Your task to perform on an android device: change the clock display to analog Image 0: 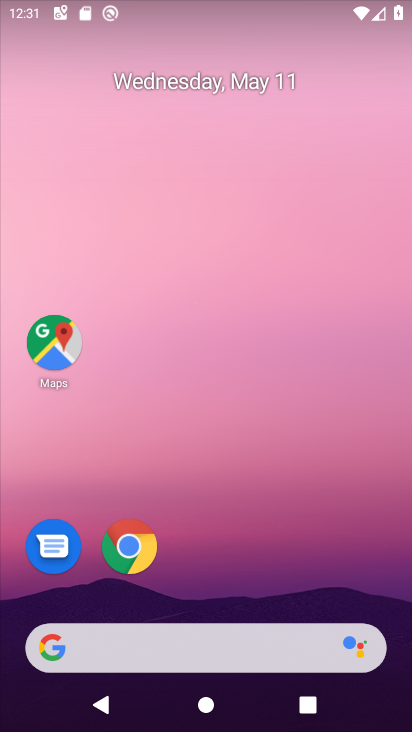
Step 0: drag from (219, 578) to (251, 254)
Your task to perform on an android device: change the clock display to analog Image 1: 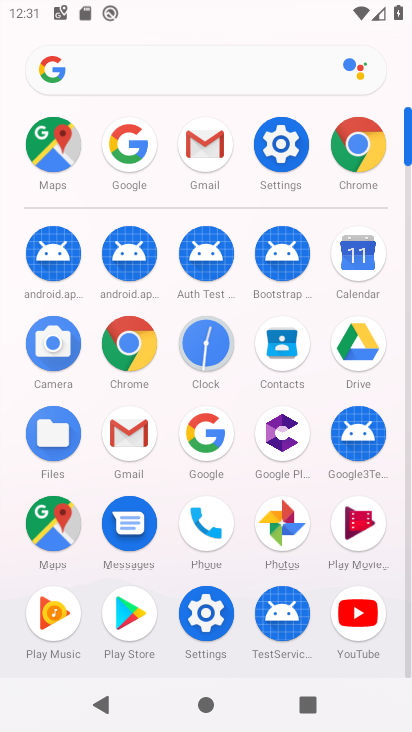
Step 1: click (205, 337)
Your task to perform on an android device: change the clock display to analog Image 2: 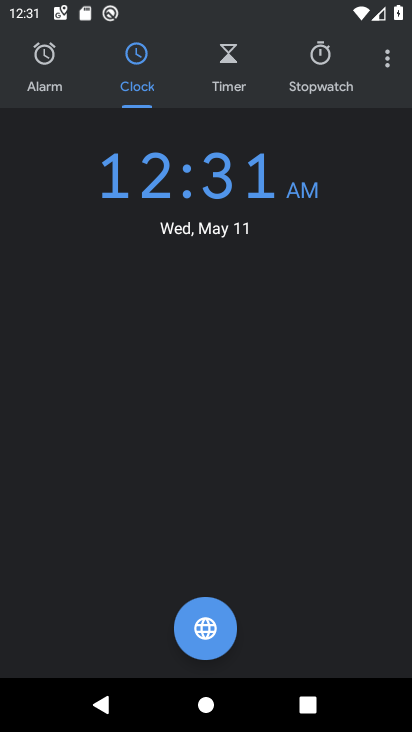
Step 2: click (382, 63)
Your task to perform on an android device: change the clock display to analog Image 3: 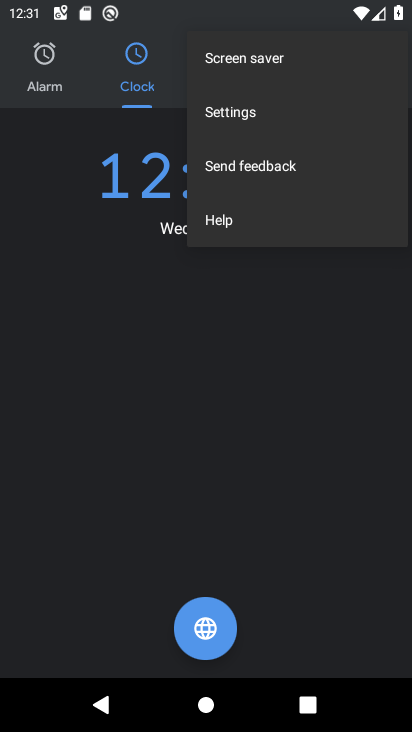
Step 3: click (276, 114)
Your task to perform on an android device: change the clock display to analog Image 4: 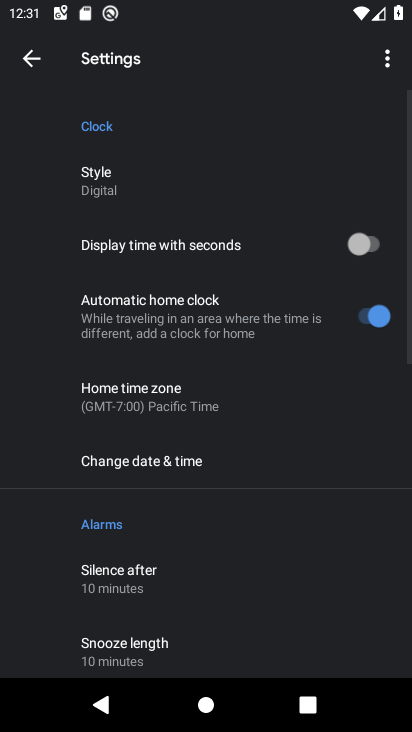
Step 4: click (115, 181)
Your task to perform on an android device: change the clock display to analog Image 5: 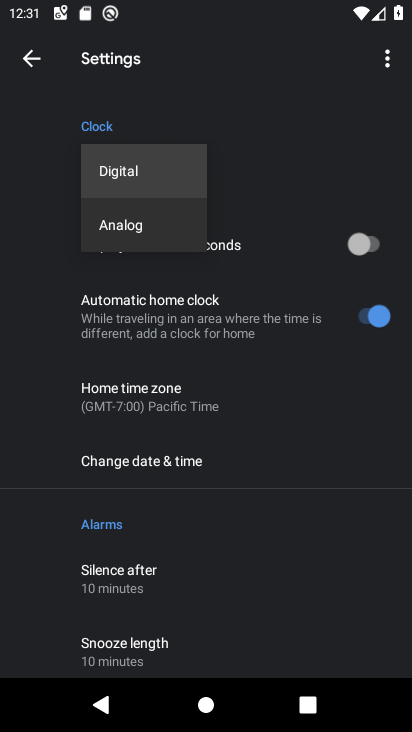
Step 5: click (124, 224)
Your task to perform on an android device: change the clock display to analog Image 6: 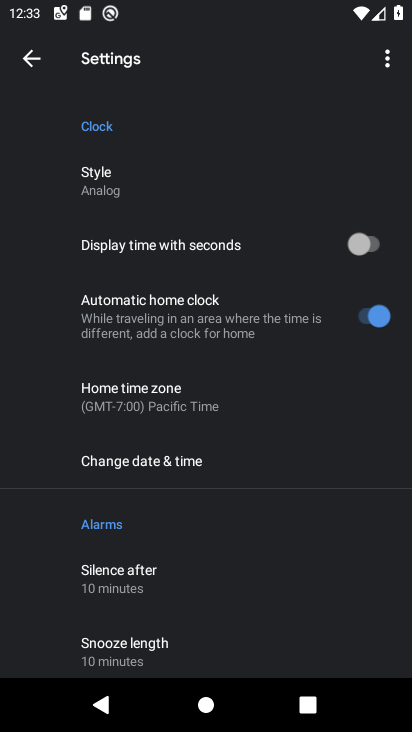
Step 6: task complete